Your task to perform on an android device: Open Google Chrome Image 0: 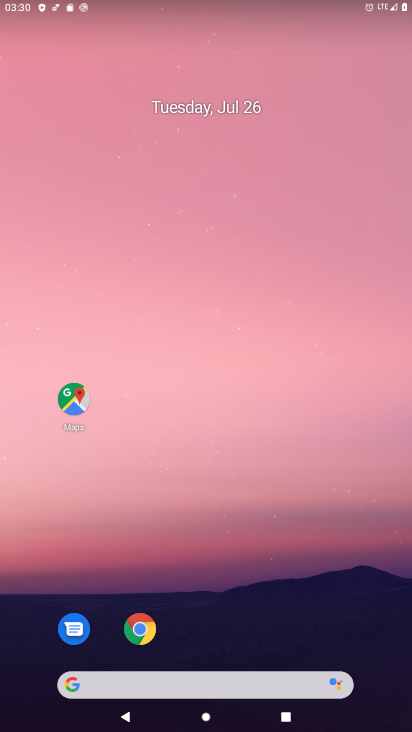
Step 0: drag from (294, 604) to (280, 13)
Your task to perform on an android device: Open Google Chrome Image 1: 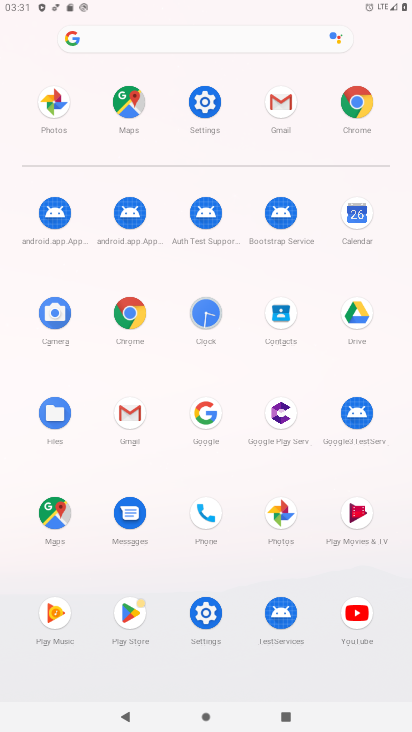
Step 1: click (127, 306)
Your task to perform on an android device: Open Google Chrome Image 2: 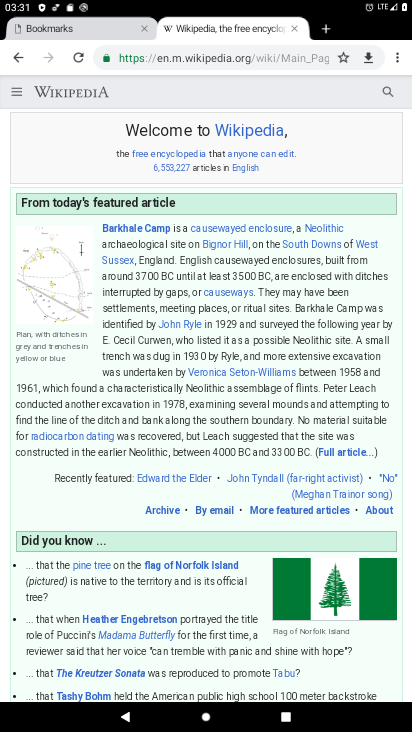
Step 2: click (294, 28)
Your task to perform on an android device: Open Google Chrome Image 3: 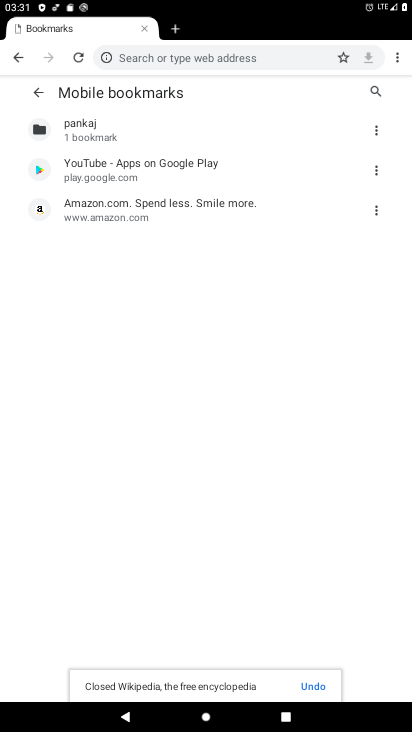
Step 3: click (18, 53)
Your task to perform on an android device: Open Google Chrome Image 4: 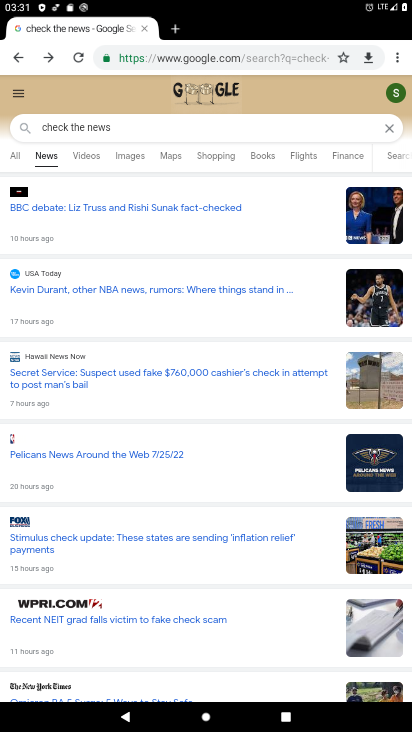
Step 4: task complete